Your task to perform on an android device: check battery use Image 0: 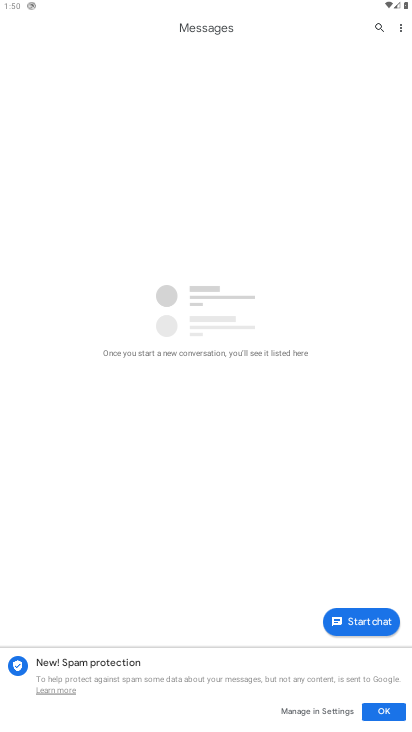
Step 0: press home button
Your task to perform on an android device: check battery use Image 1: 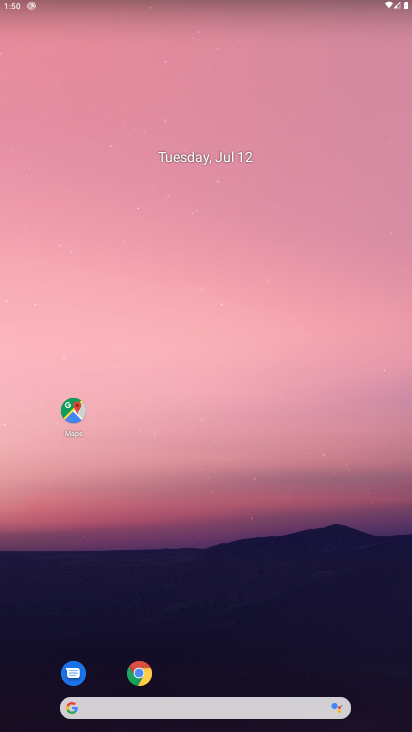
Step 1: drag from (222, 697) to (192, 274)
Your task to perform on an android device: check battery use Image 2: 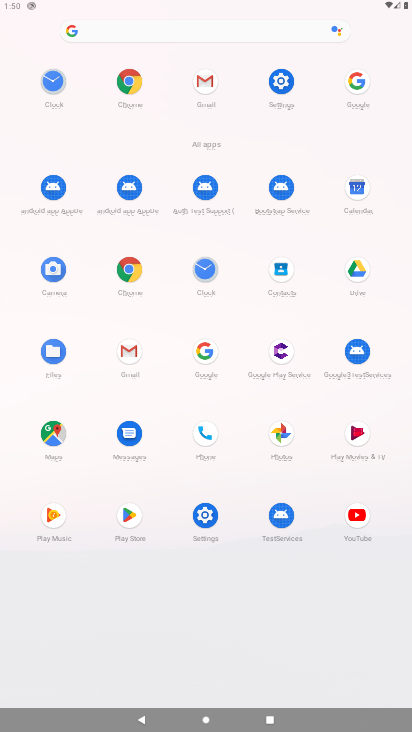
Step 2: click (278, 73)
Your task to perform on an android device: check battery use Image 3: 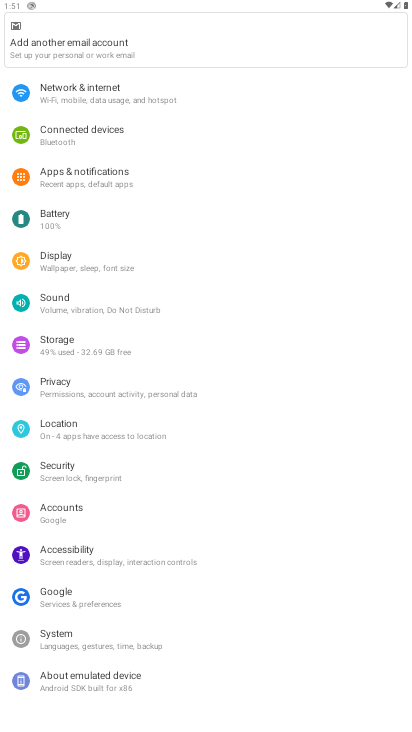
Step 3: click (53, 221)
Your task to perform on an android device: check battery use Image 4: 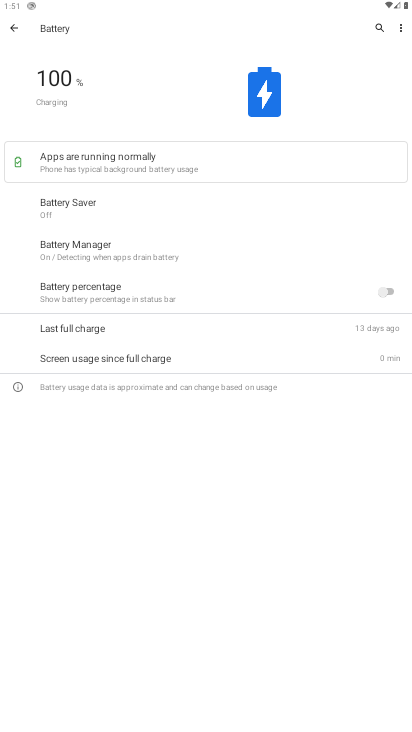
Step 4: click (395, 30)
Your task to perform on an android device: check battery use Image 5: 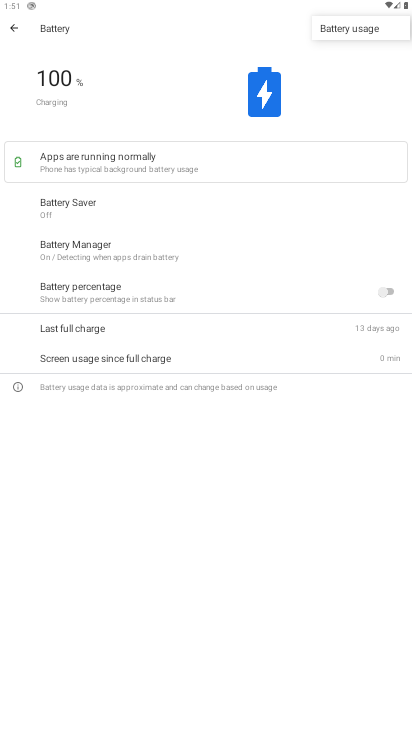
Step 5: click (370, 28)
Your task to perform on an android device: check battery use Image 6: 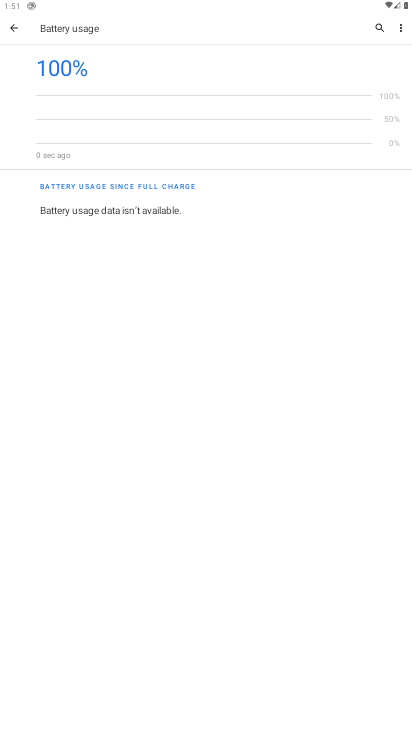
Step 6: task complete